Your task to perform on an android device: turn off wifi Image 0: 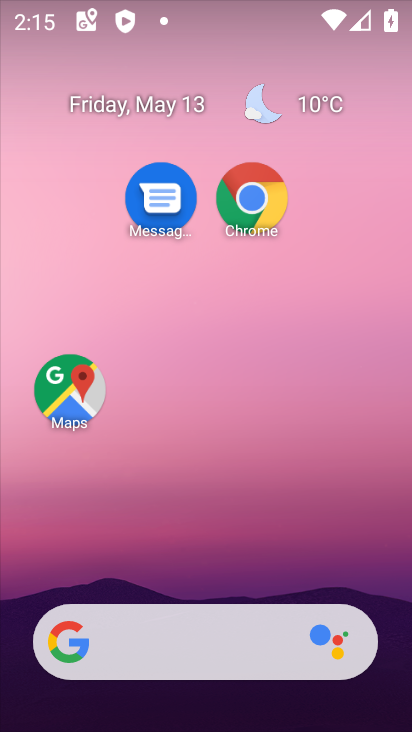
Step 0: drag from (209, 589) to (145, 78)
Your task to perform on an android device: turn off wifi Image 1: 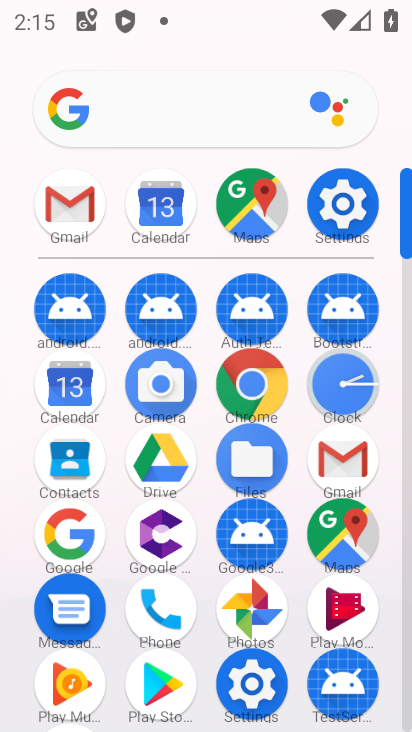
Step 1: click (344, 206)
Your task to perform on an android device: turn off wifi Image 2: 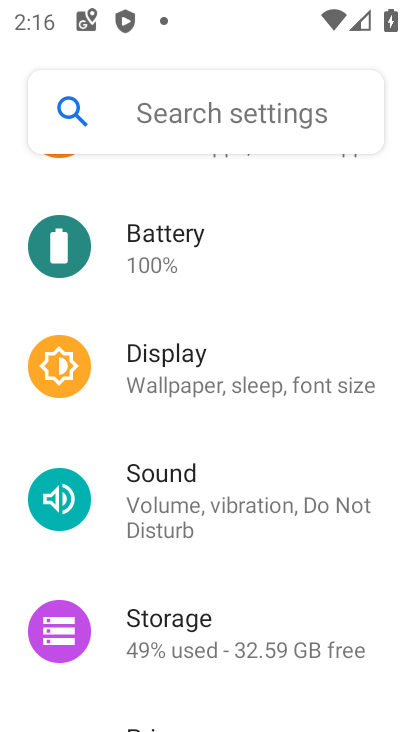
Step 2: drag from (230, 203) to (202, 688)
Your task to perform on an android device: turn off wifi Image 3: 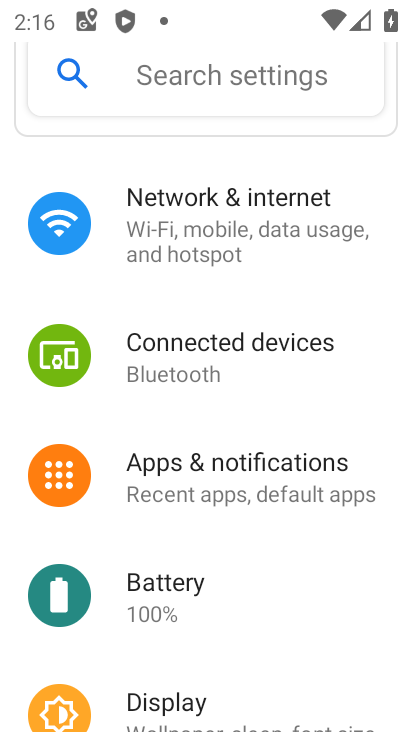
Step 3: click (179, 283)
Your task to perform on an android device: turn off wifi Image 4: 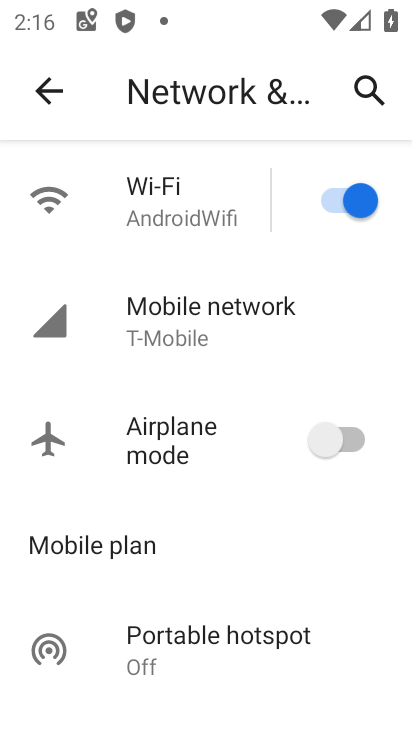
Step 4: click (189, 186)
Your task to perform on an android device: turn off wifi Image 5: 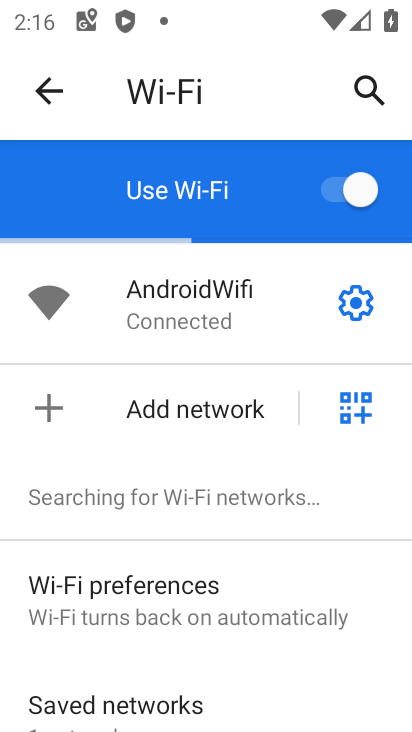
Step 5: click (357, 202)
Your task to perform on an android device: turn off wifi Image 6: 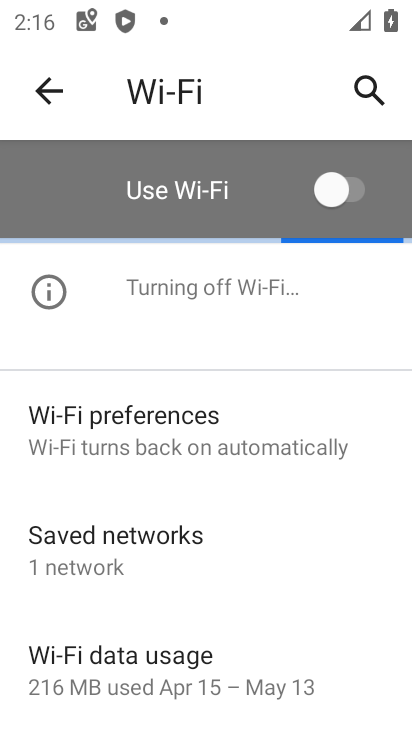
Step 6: task complete